Your task to perform on an android device: set the stopwatch Image 0: 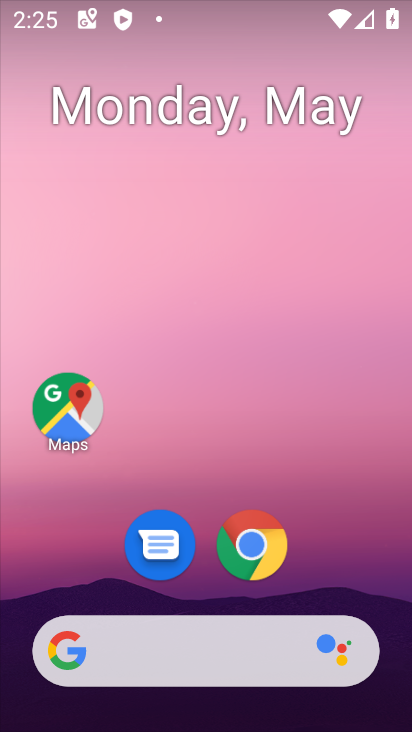
Step 0: drag from (254, 708) to (242, 75)
Your task to perform on an android device: set the stopwatch Image 1: 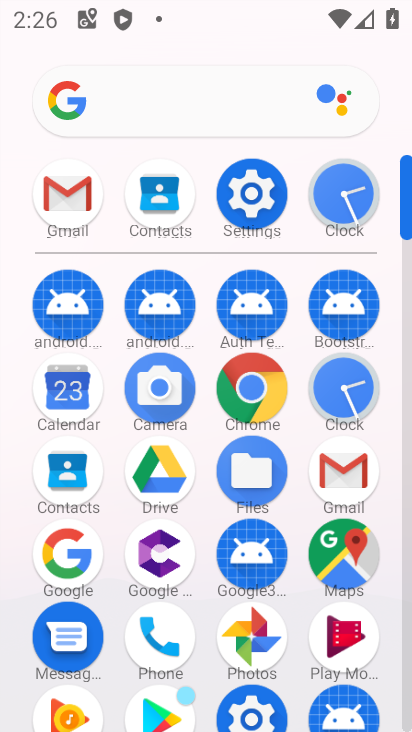
Step 1: click (352, 196)
Your task to perform on an android device: set the stopwatch Image 2: 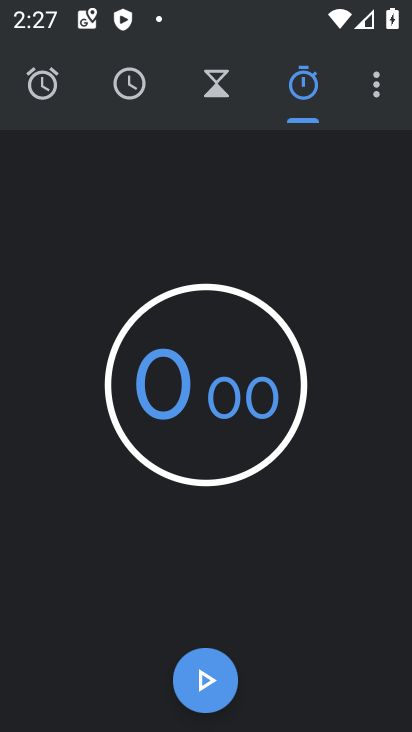
Step 2: task complete